Your task to perform on an android device: change notification settings in the gmail app Image 0: 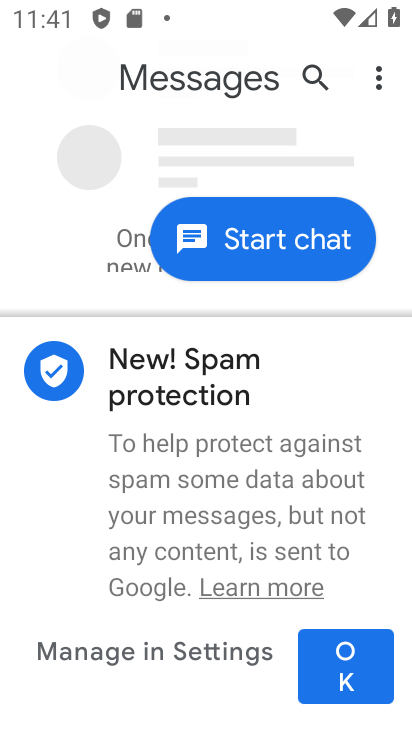
Step 0: press home button
Your task to perform on an android device: change notification settings in the gmail app Image 1: 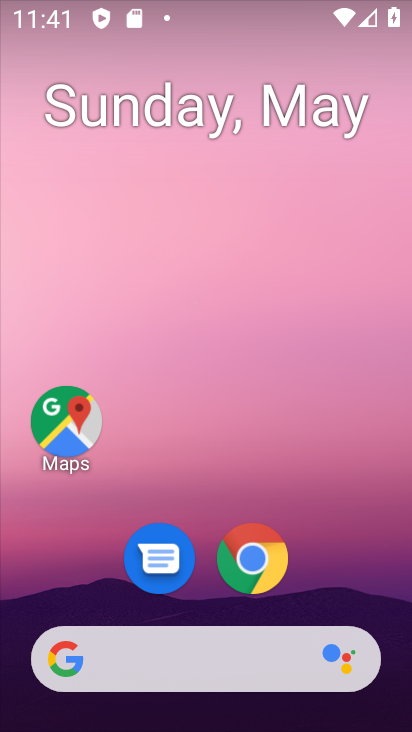
Step 1: drag from (357, 586) to (333, 124)
Your task to perform on an android device: change notification settings in the gmail app Image 2: 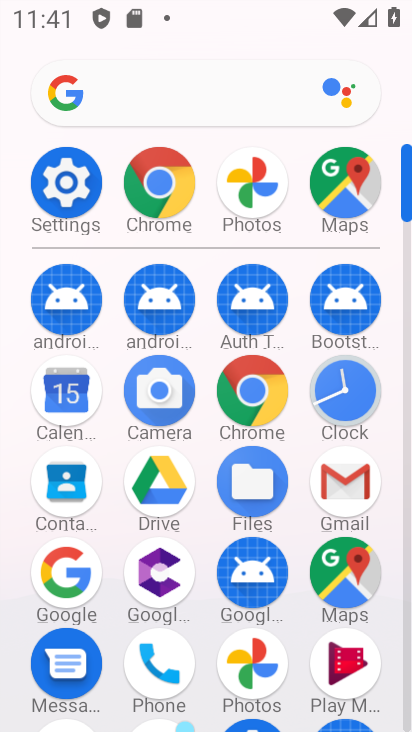
Step 2: click (355, 484)
Your task to perform on an android device: change notification settings in the gmail app Image 3: 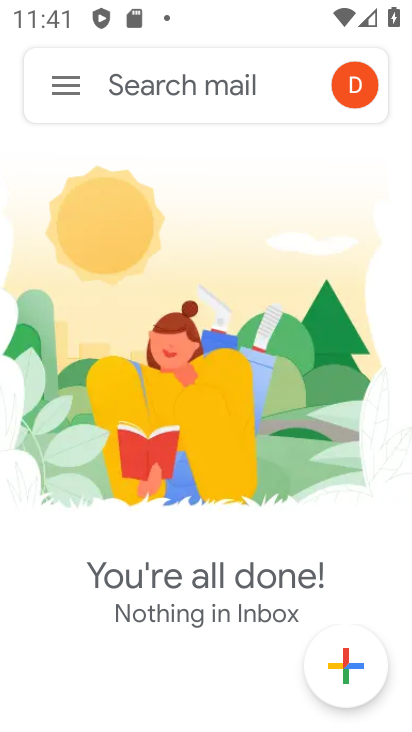
Step 3: click (74, 82)
Your task to perform on an android device: change notification settings in the gmail app Image 4: 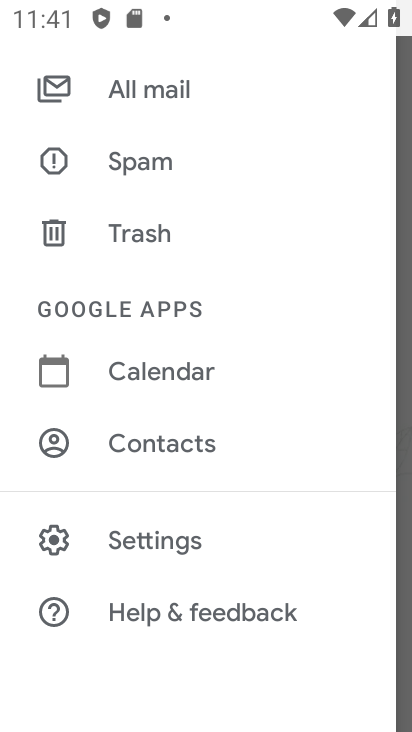
Step 4: drag from (316, 567) to (313, 360)
Your task to perform on an android device: change notification settings in the gmail app Image 5: 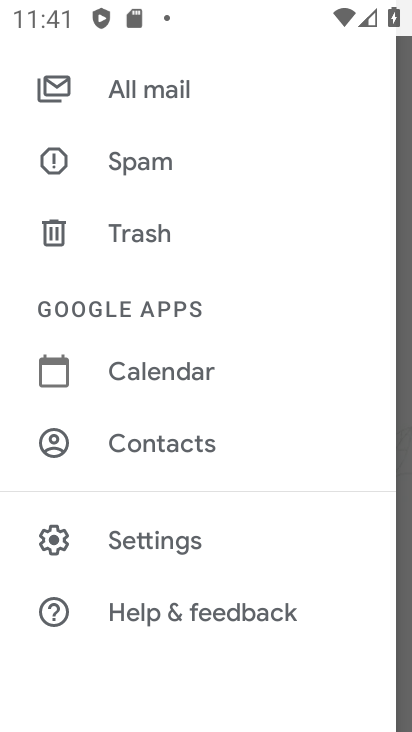
Step 5: click (203, 552)
Your task to perform on an android device: change notification settings in the gmail app Image 6: 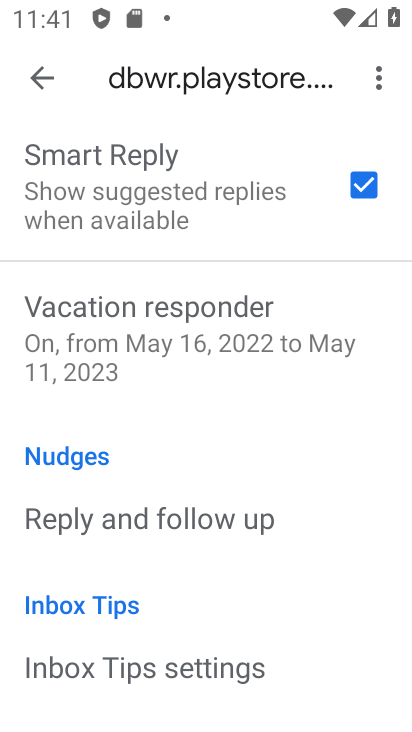
Step 6: drag from (352, 399) to (345, 548)
Your task to perform on an android device: change notification settings in the gmail app Image 7: 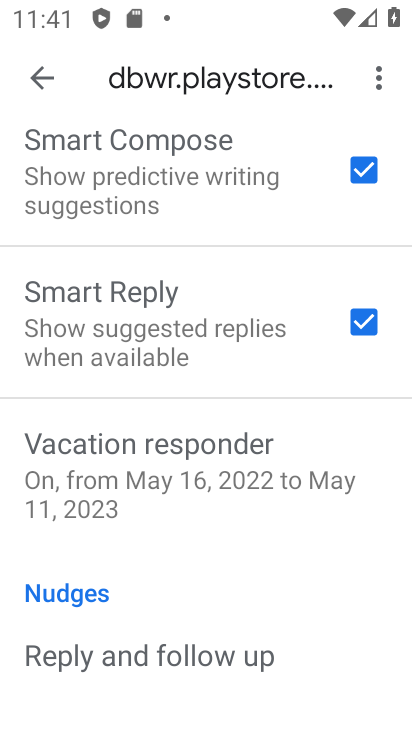
Step 7: drag from (313, 237) to (319, 538)
Your task to perform on an android device: change notification settings in the gmail app Image 8: 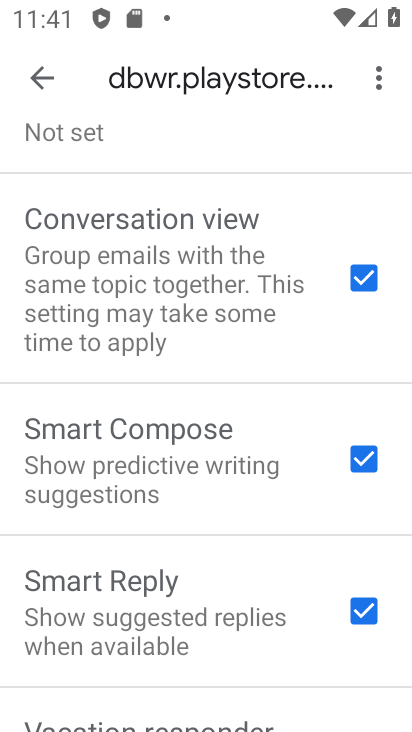
Step 8: drag from (306, 214) to (297, 476)
Your task to perform on an android device: change notification settings in the gmail app Image 9: 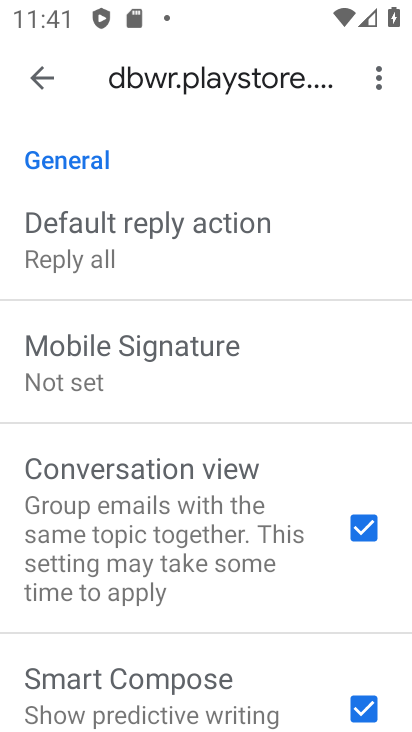
Step 9: drag from (329, 256) to (311, 487)
Your task to perform on an android device: change notification settings in the gmail app Image 10: 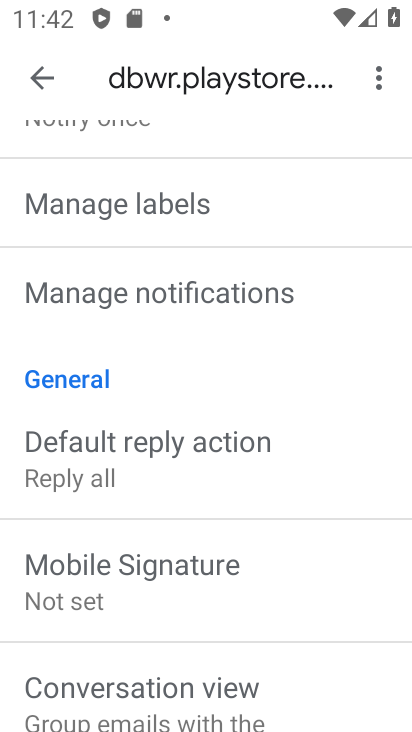
Step 10: click (258, 284)
Your task to perform on an android device: change notification settings in the gmail app Image 11: 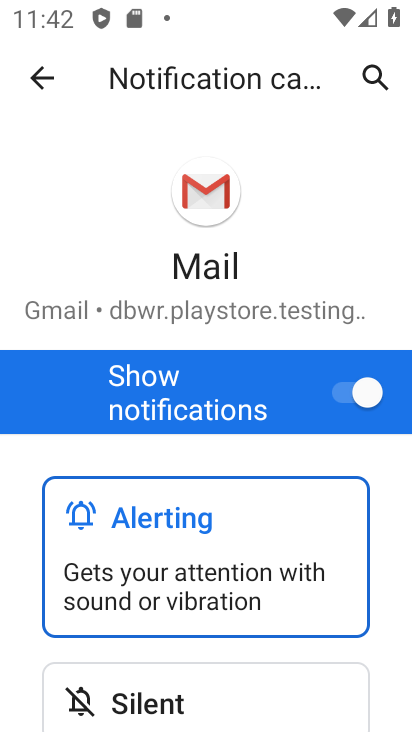
Step 11: click (360, 396)
Your task to perform on an android device: change notification settings in the gmail app Image 12: 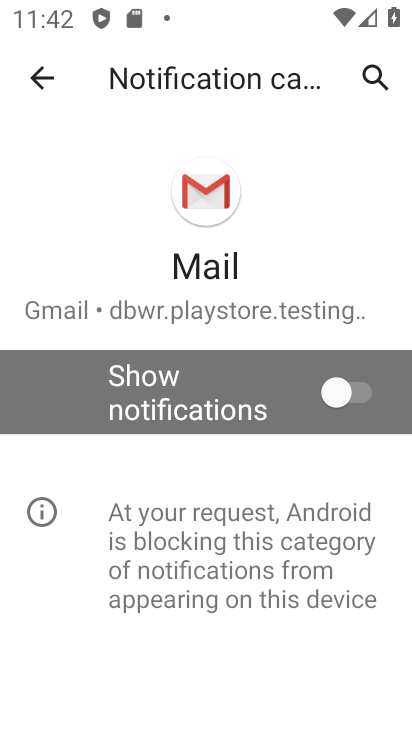
Step 12: task complete